Your task to perform on an android device: Search for vegetarian restaurants on Maps Image 0: 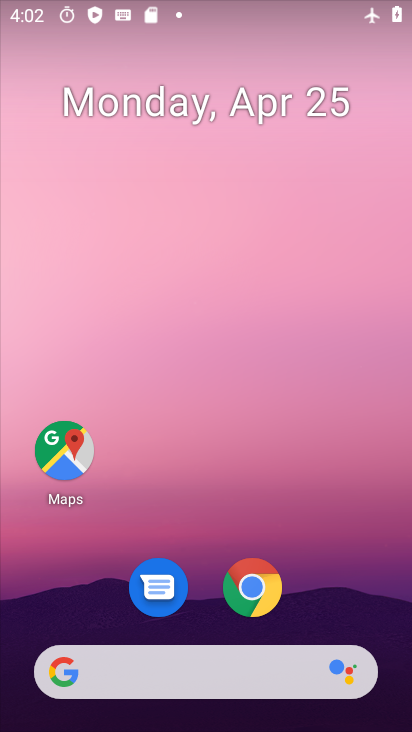
Step 0: drag from (329, 434) to (294, 53)
Your task to perform on an android device: Search for vegetarian restaurants on Maps Image 1: 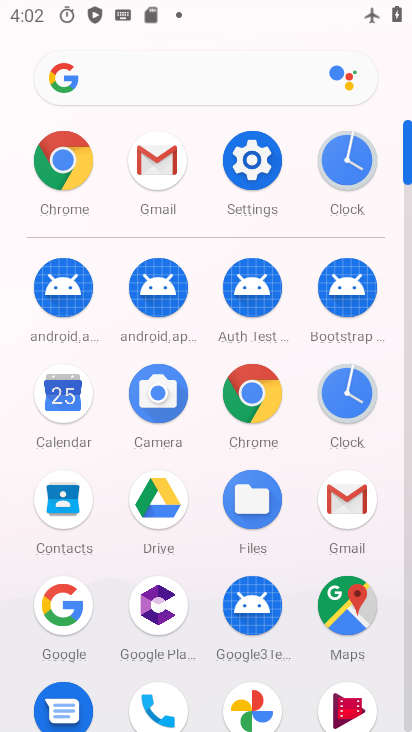
Step 1: click (349, 616)
Your task to perform on an android device: Search for vegetarian restaurants on Maps Image 2: 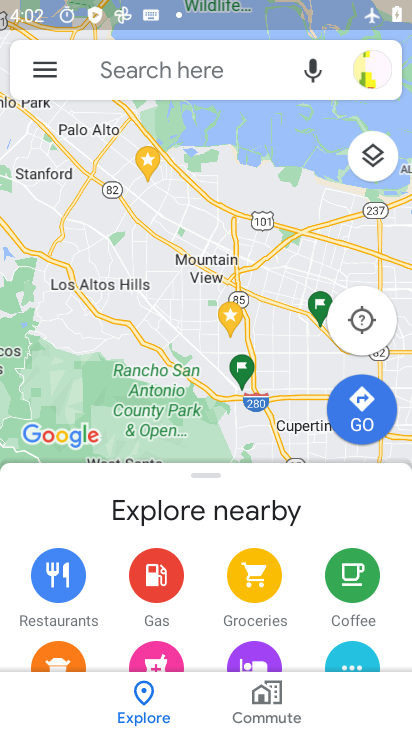
Step 2: click (230, 56)
Your task to perform on an android device: Search for vegetarian restaurants on Maps Image 3: 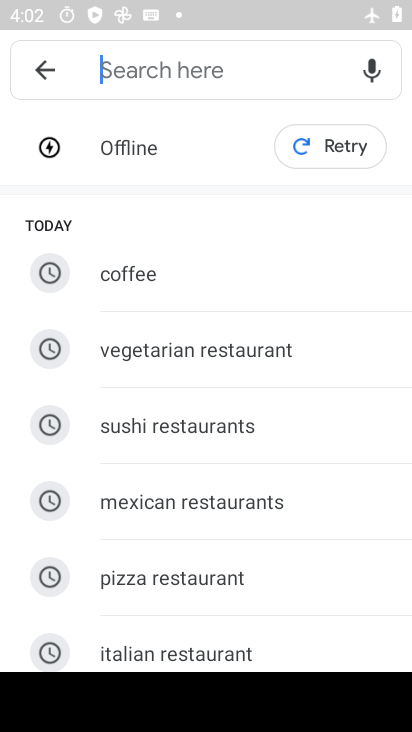
Step 3: type "vegetarian restaurants"
Your task to perform on an android device: Search for vegetarian restaurants on Maps Image 4: 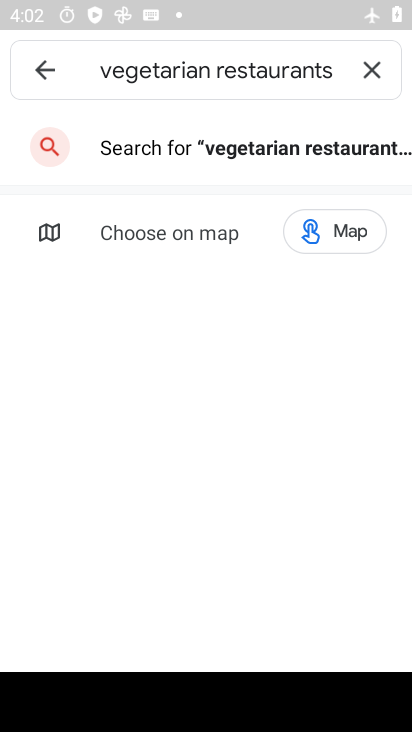
Step 4: press enter
Your task to perform on an android device: Search for vegetarian restaurants on Maps Image 5: 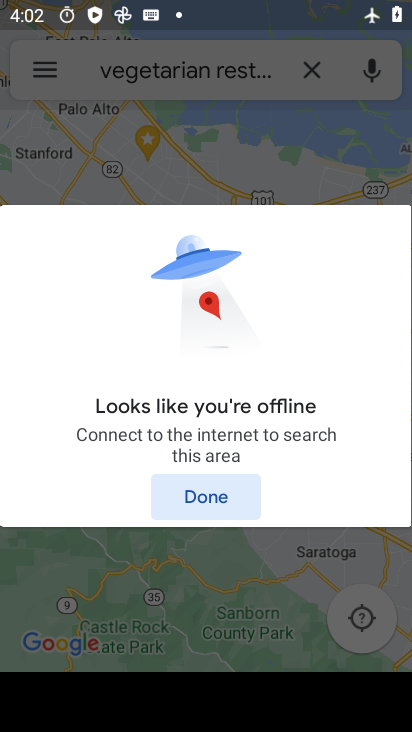
Step 5: press enter
Your task to perform on an android device: Search for vegetarian restaurants on Maps Image 6: 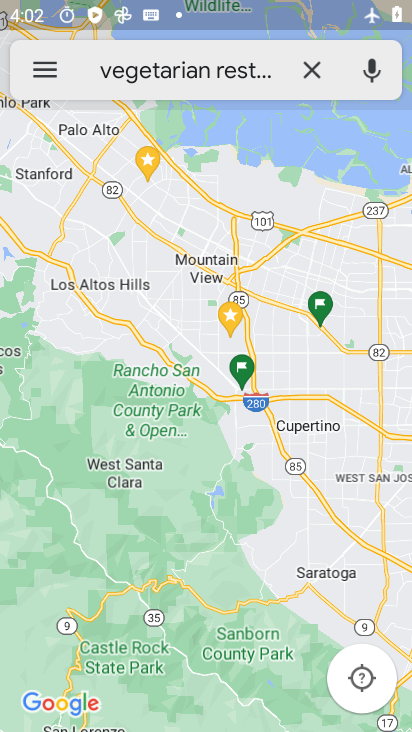
Step 6: press enter
Your task to perform on an android device: Search for vegetarian restaurants on Maps Image 7: 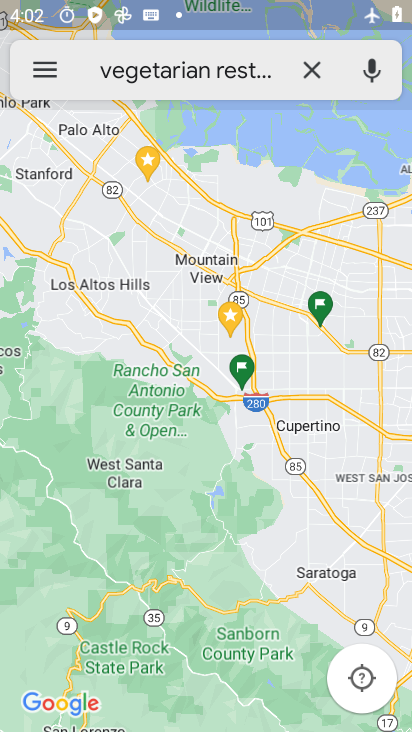
Step 7: click (266, 70)
Your task to perform on an android device: Search for vegetarian restaurants on Maps Image 8: 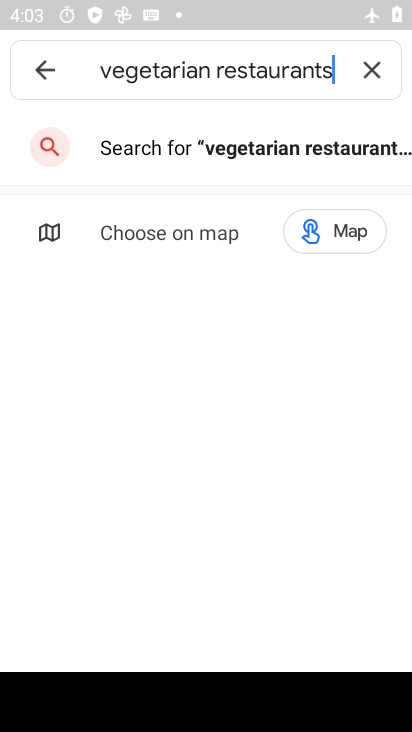
Step 8: press enter
Your task to perform on an android device: Search for vegetarian restaurants on Maps Image 9: 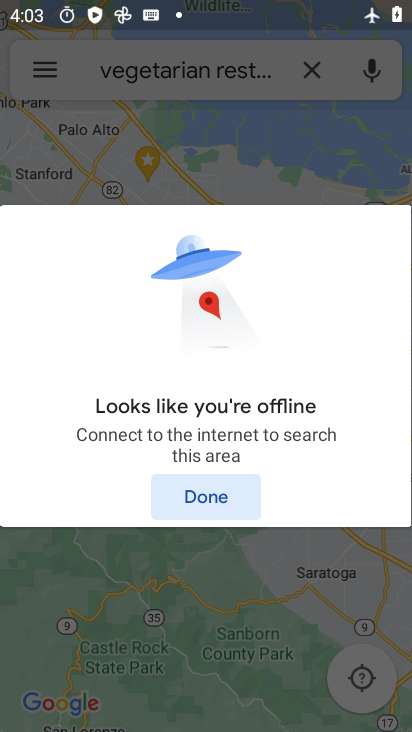
Step 9: task complete